Your task to perform on an android device: Add razer kraken to the cart on ebay, then select checkout. Image 0: 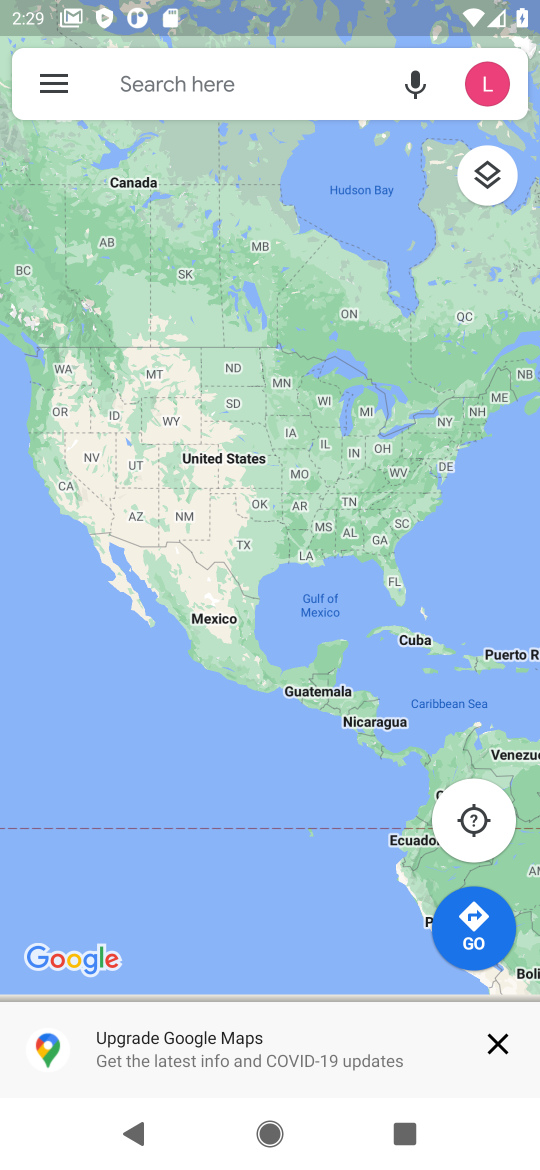
Step 0: press home button
Your task to perform on an android device: Add razer kraken to the cart on ebay, then select checkout. Image 1: 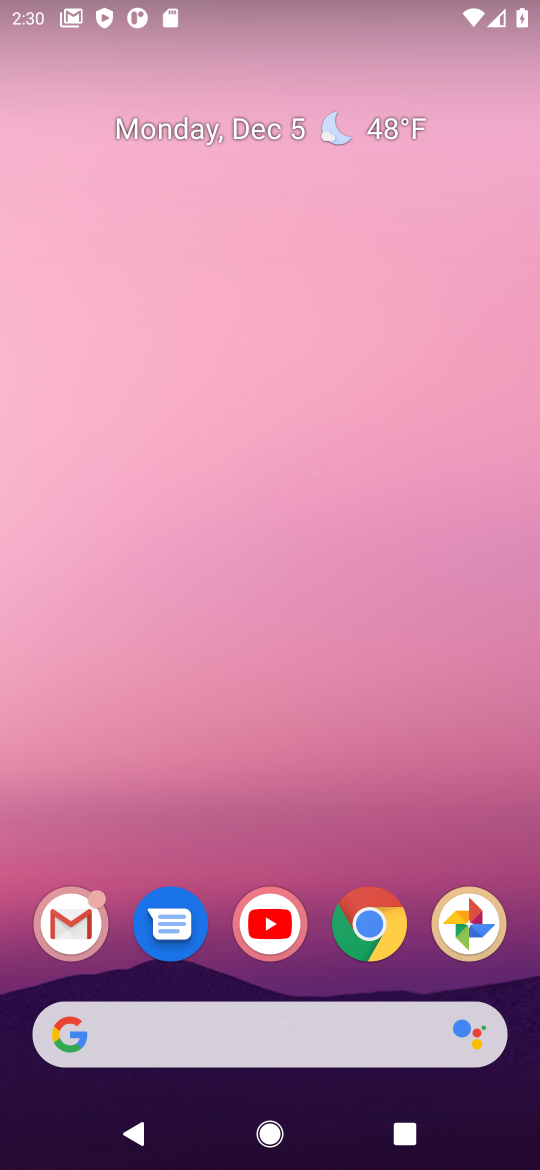
Step 1: task complete